Your task to perform on an android device: turn on translation in the chrome app Image 0: 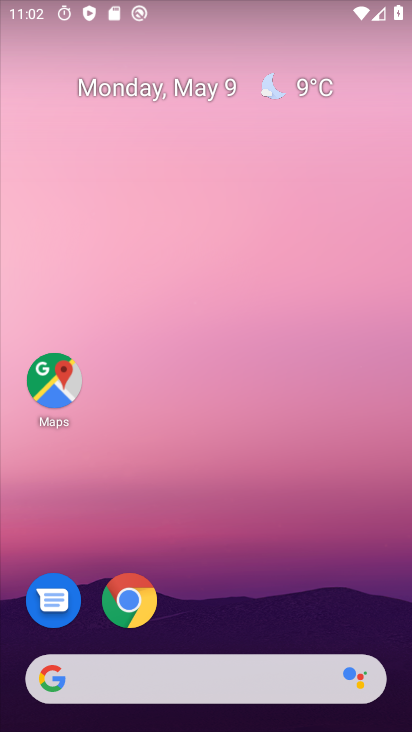
Step 0: click (131, 606)
Your task to perform on an android device: turn on translation in the chrome app Image 1: 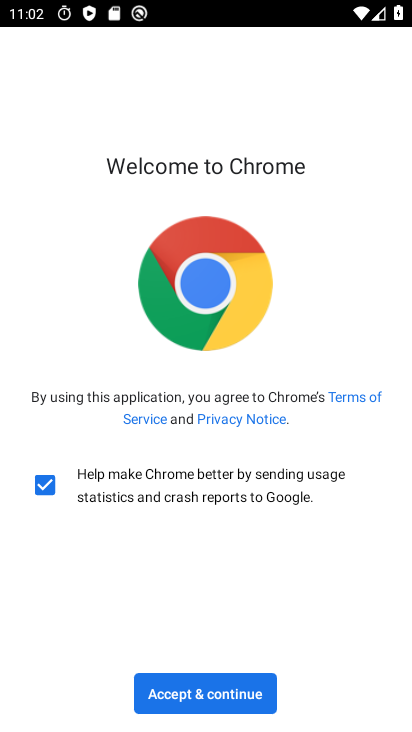
Step 1: click (229, 703)
Your task to perform on an android device: turn on translation in the chrome app Image 2: 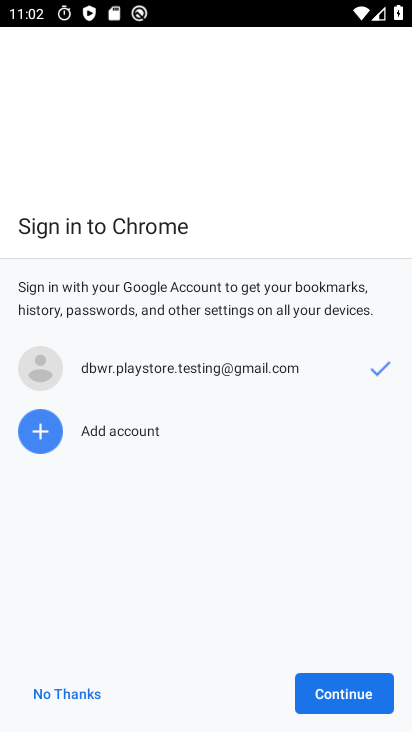
Step 2: click (340, 694)
Your task to perform on an android device: turn on translation in the chrome app Image 3: 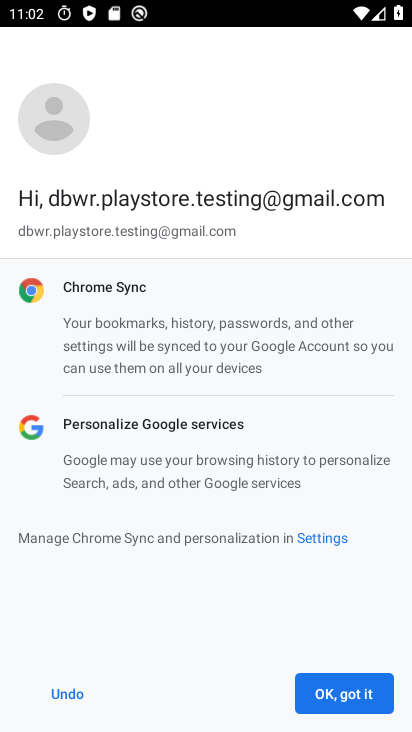
Step 3: click (340, 693)
Your task to perform on an android device: turn on translation in the chrome app Image 4: 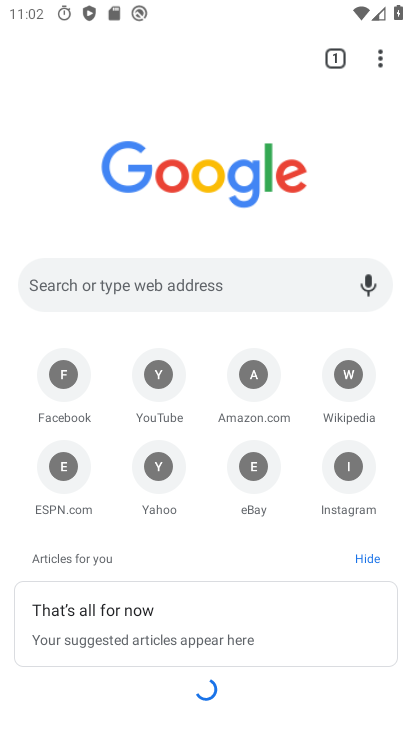
Step 4: drag from (387, 59) to (238, 487)
Your task to perform on an android device: turn on translation in the chrome app Image 5: 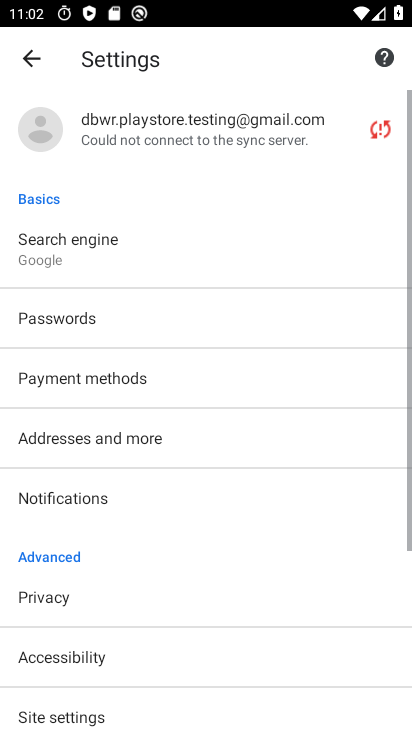
Step 5: drag from (148, 669) to (249, 390)
Your task to perform on an android device: turn on translation in the chrome app Image 6: 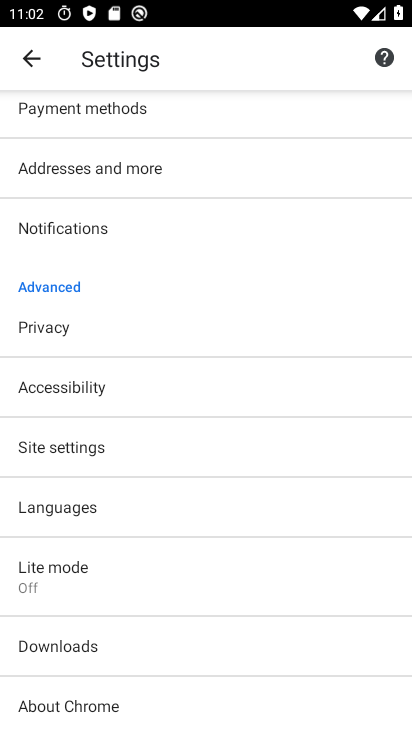
Step 6: click (156, 509)
Your task to perform on an android device: turn on translation in the chrome app Image 7: 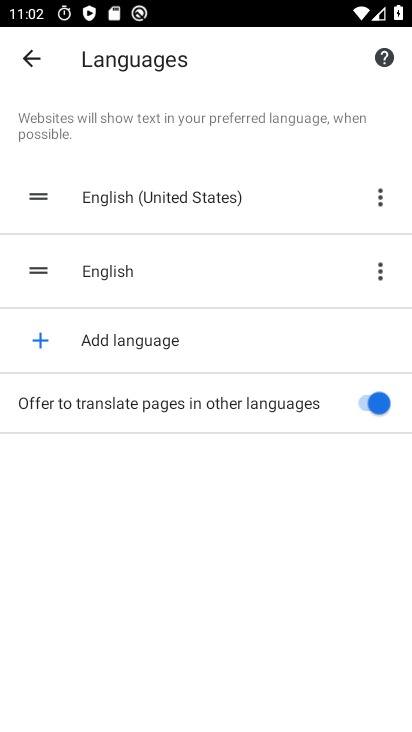
Step 7: task complete